Your task to perform on an android device: Show me productivity apps on the Play Store Image 0: 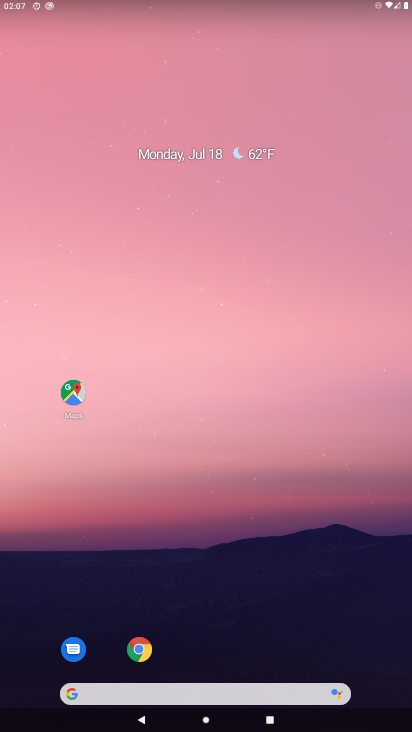
Step 0: drag from (51, 687) to (149, 234)
Your task to perform on an android device: Show me productivity apps on the Play Store Image 1: 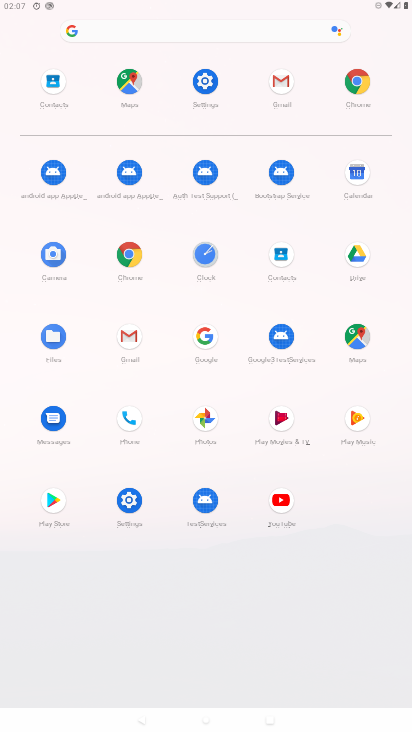
Step 1: click (31, 505)
Your task to perform on an android device: Show me productivity apps on the Play Store Image 2: 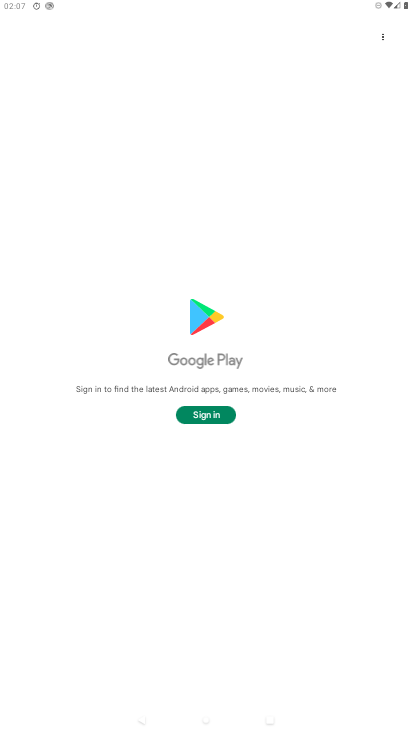
Step 2: click (205, 429)
Your task to perform on an android device: Show me productivity apps on the Play Store Image 3: 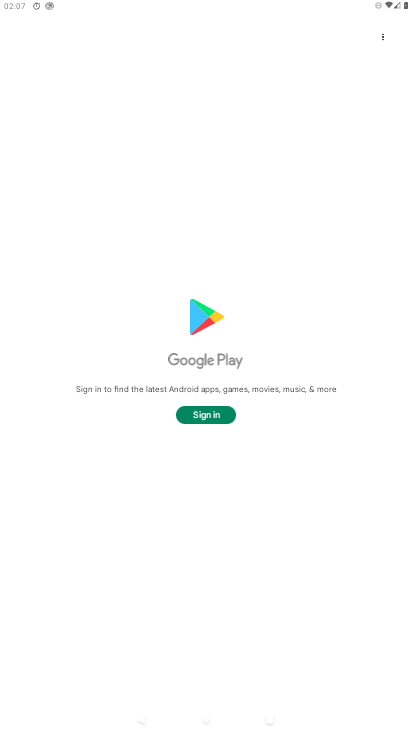
Step 3: click (196, 415)
Your task to perform on an android device: Show me productivity apps on the Play Store Image 4: 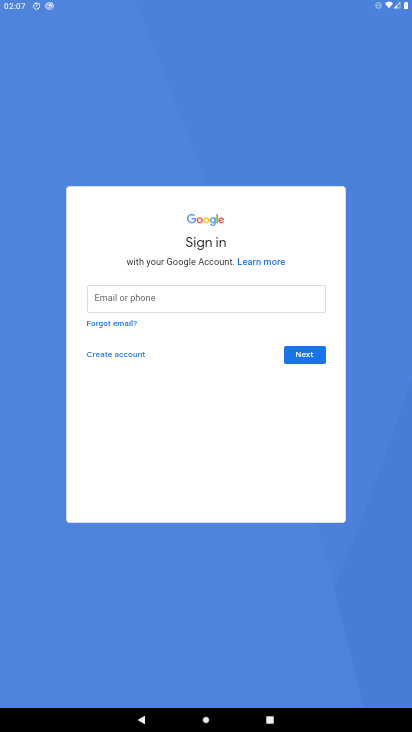
Step 4: task complete